Your task to perform on an android device: toggle improve location accuracy Image 0: 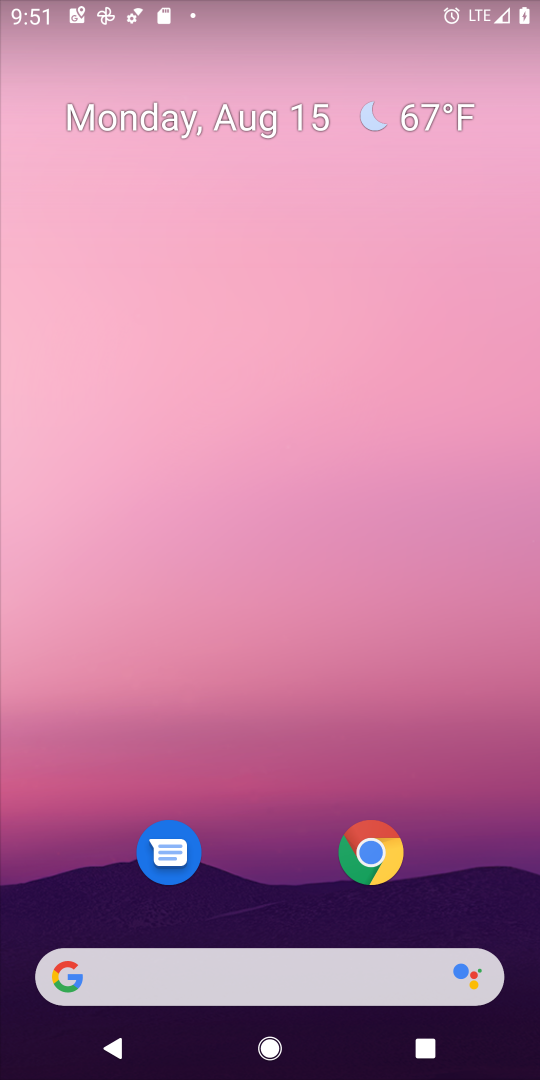
Step 0: drag from (201, 968) to (195, 80)
Your task to perform on an android device: toggle improve location accuracy Image 1: 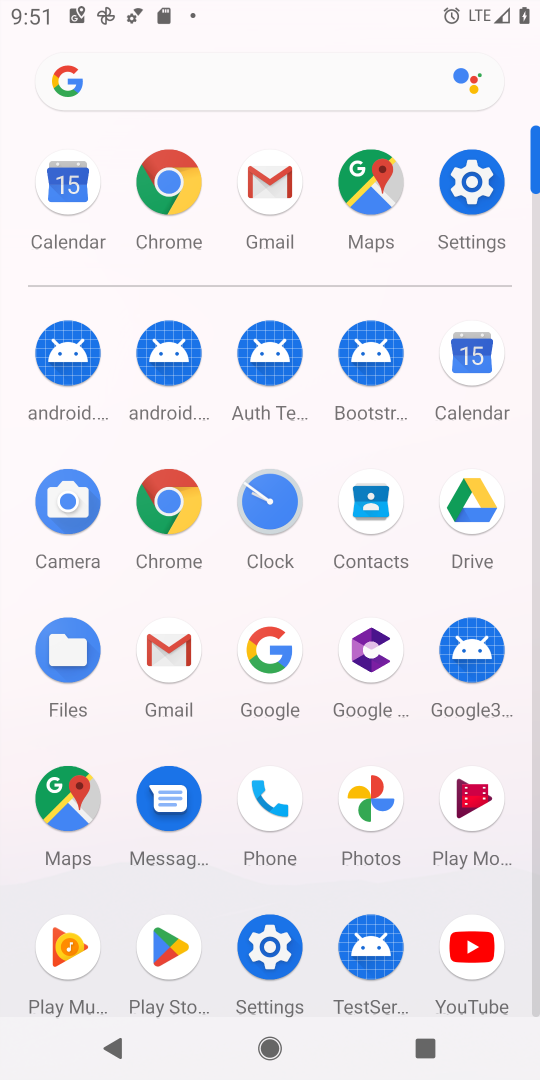
Step 1: click (470, 184)
Your task to perform on an android device: toggle improve location accuracy Image 2: 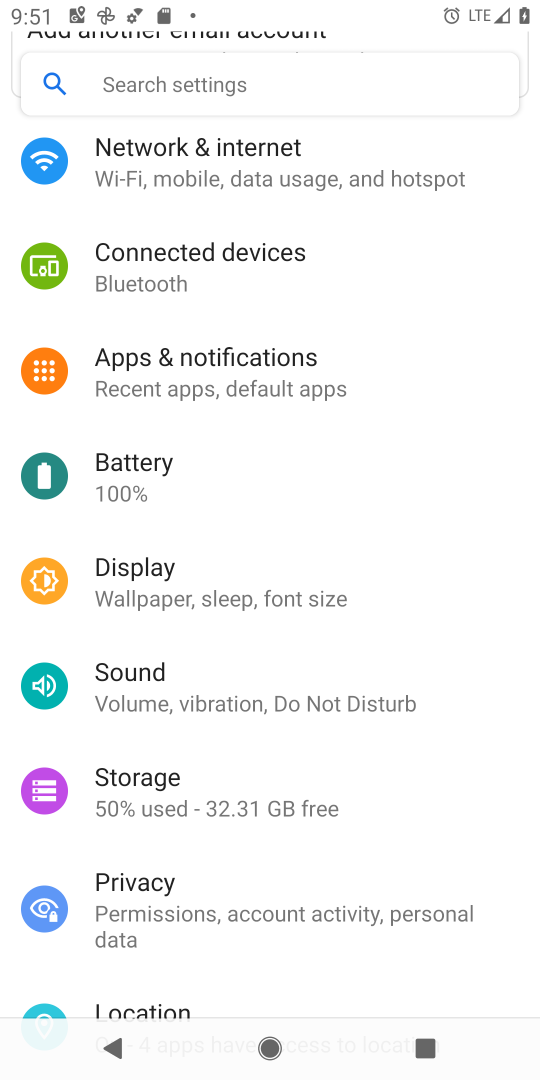
Step 2: click (137, 1008)
Your task to perform on an android device: toggle improve location accuracy Image 3: 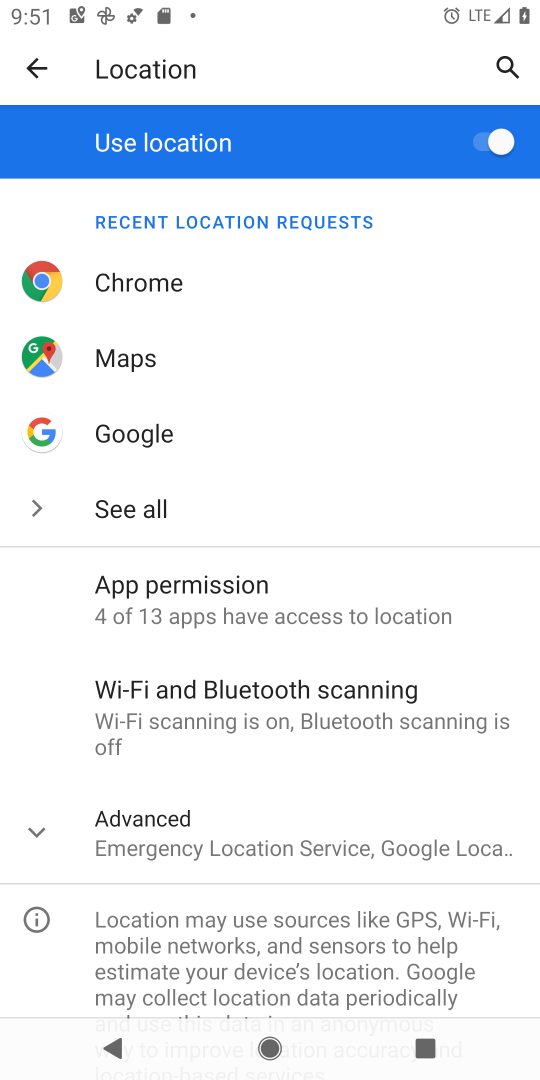
Step 3: click (244, 847)
Your task to perform on an android device: toggle improve location accuracy Image 4: 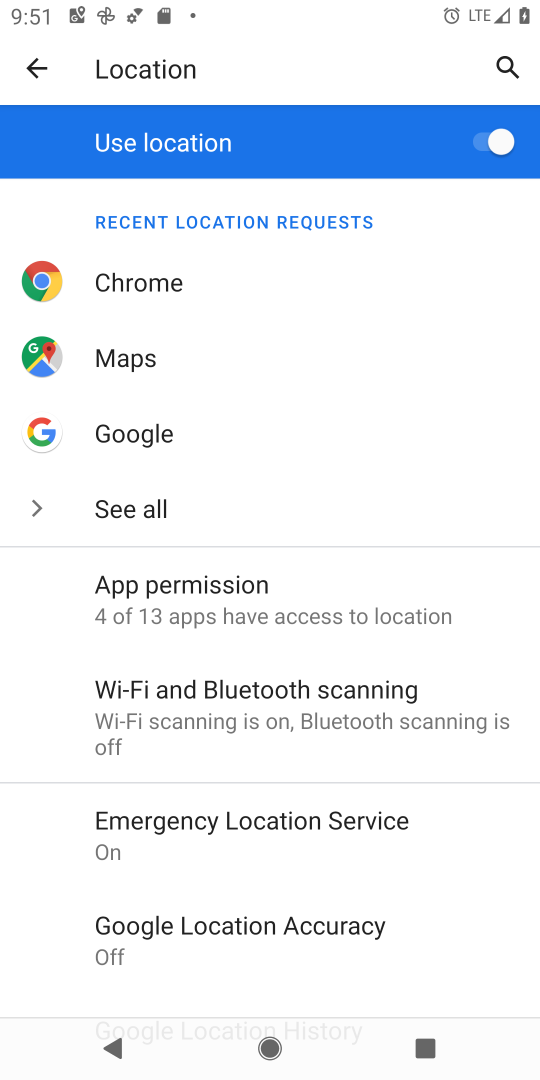
Step 4: drag from (238, 977) to (359, 831)
Your task to perform on an android device: toggle improve location accuracy Image 5: 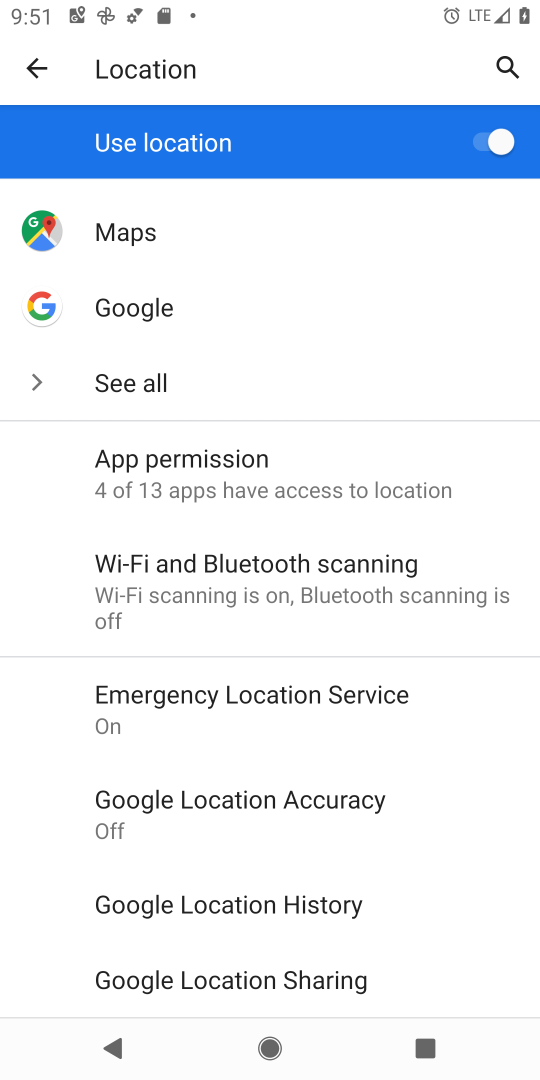
Step 5: click (312, 804)
Your task to perform on an android device: toggle improve location accuracy Image 6: 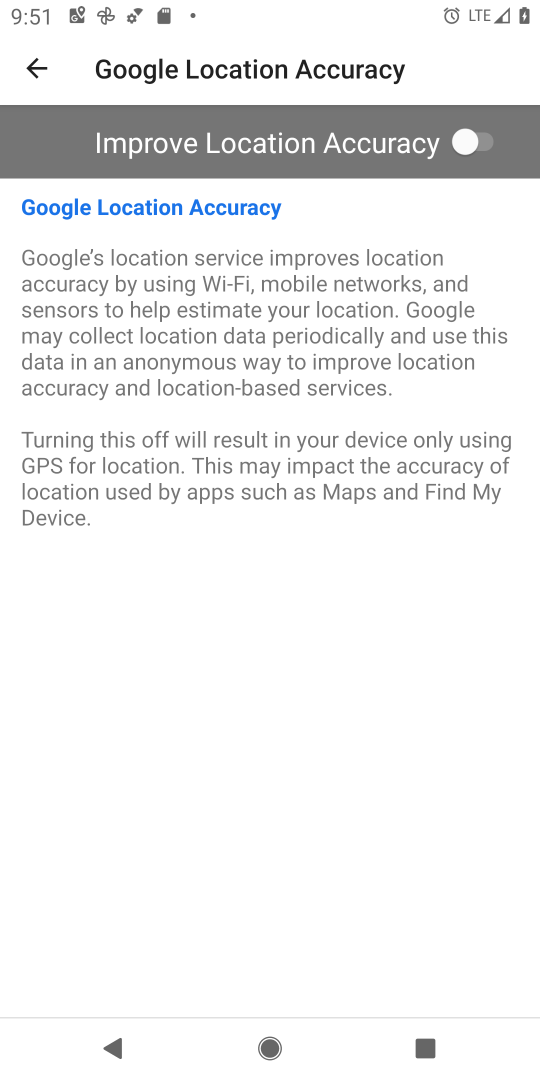
Step 6: click (460, 150)
Your task to perform on an android device: toggle improve location accuracy Image 7: 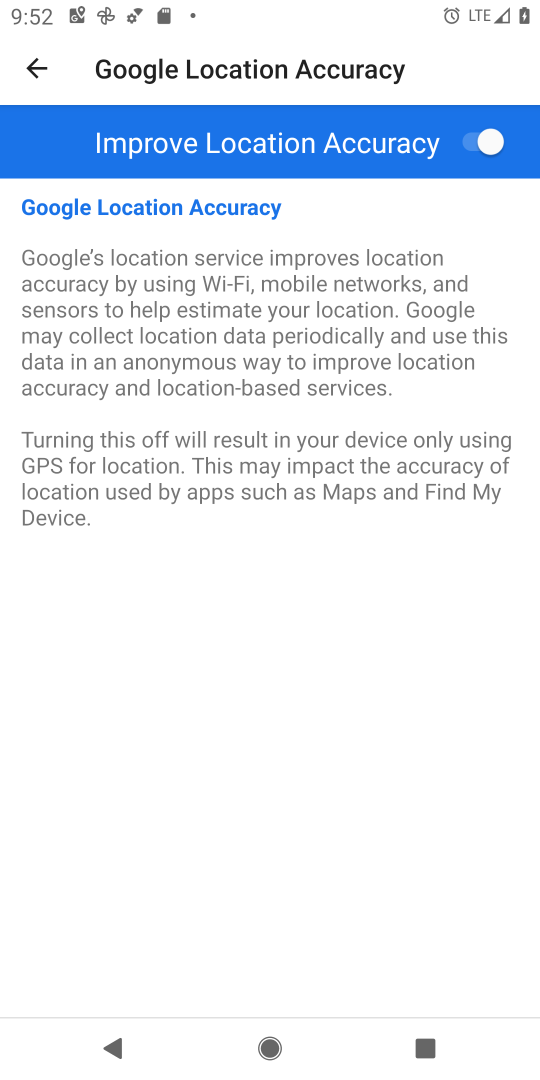
Step 7: task complete